Your task to perform on an android device: change the clock style Image 0: 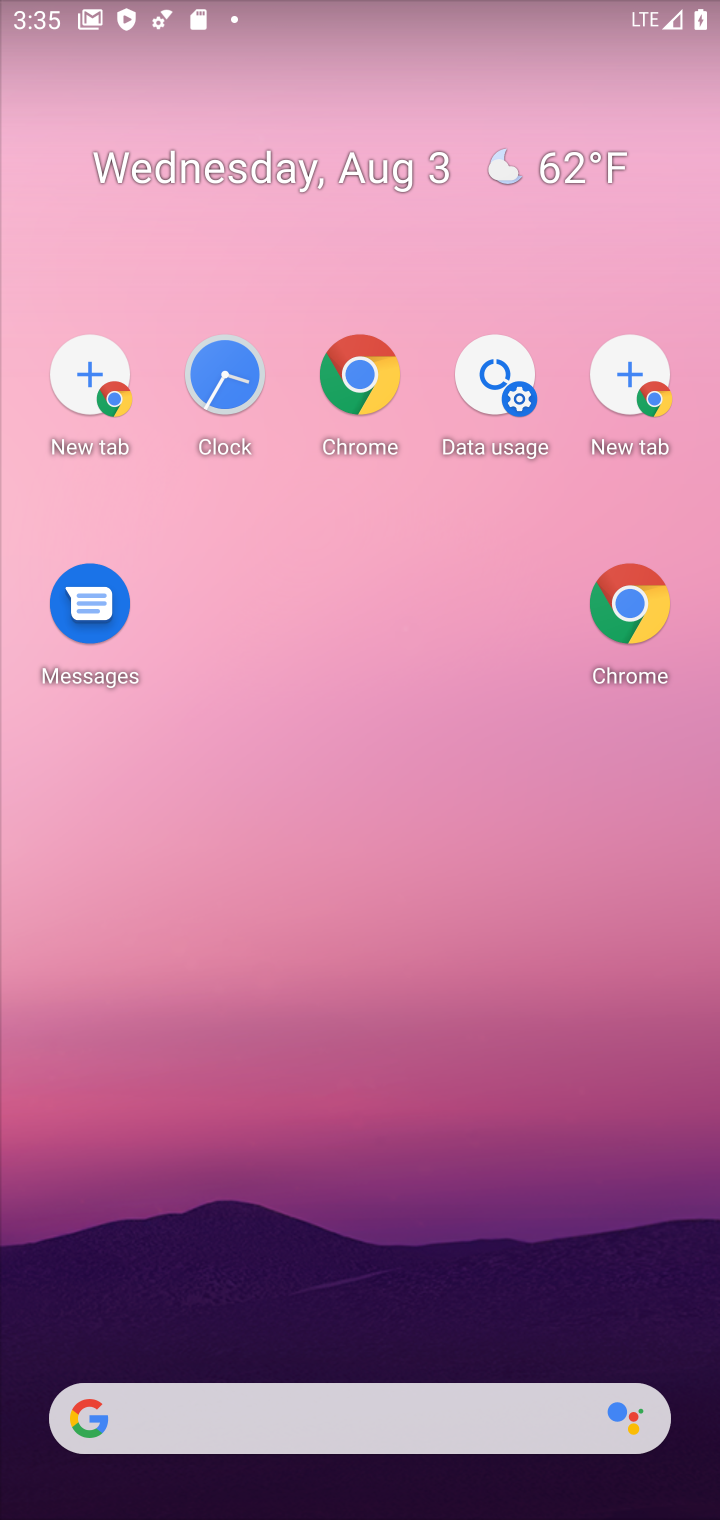
Step 0: click (211, 368)
Your task to perform on an android device: change the clock style Image 1: 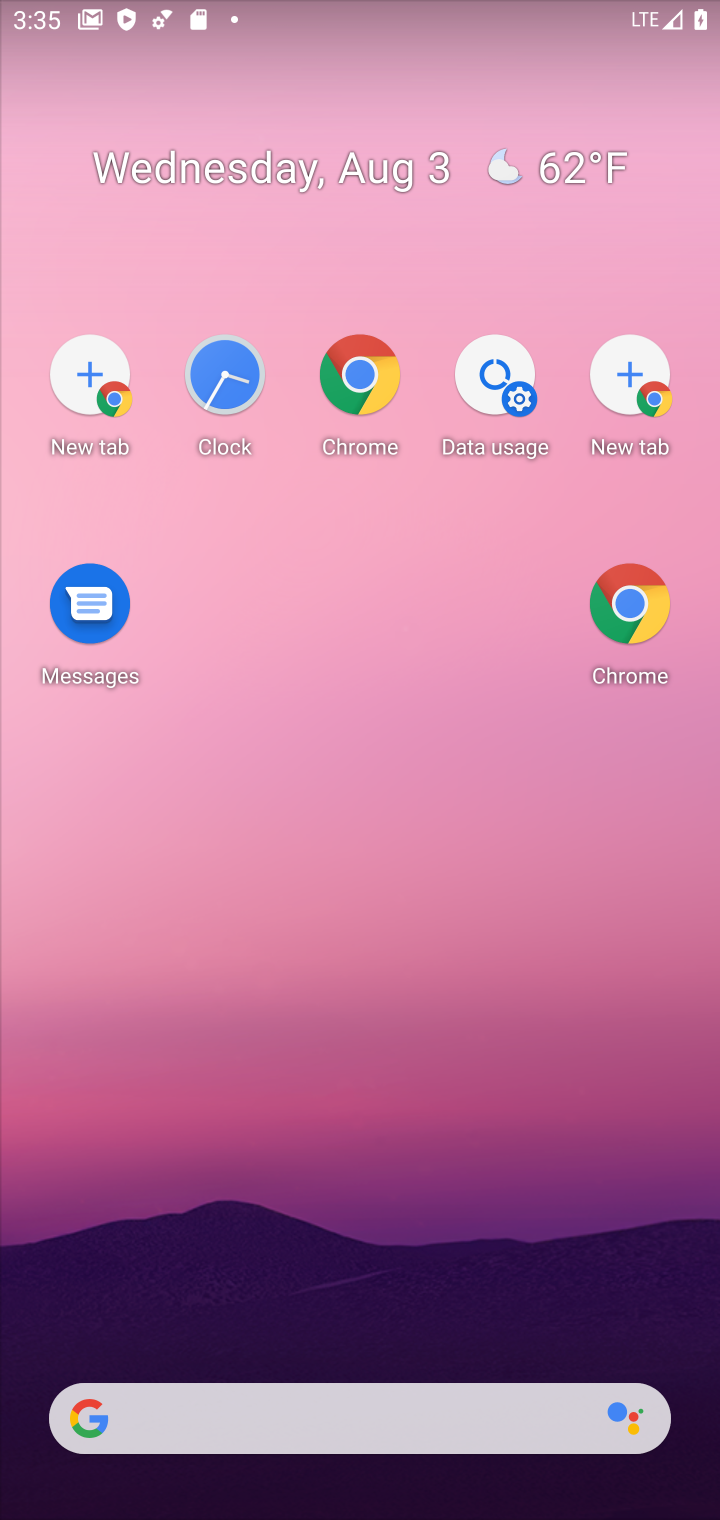
Step 1: click (223, 383)
Your task to perform on an android device: change the clock style Image 2: 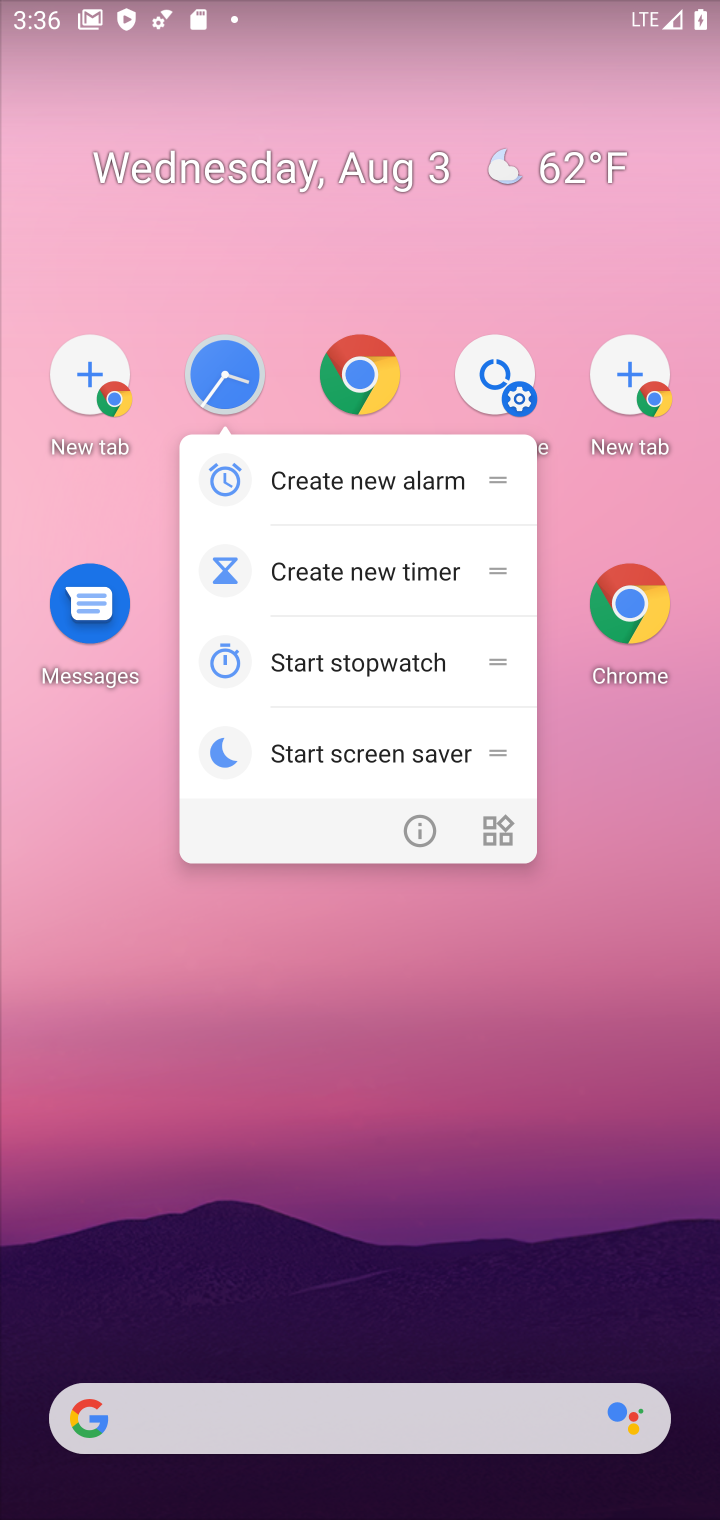
Step 2: click (318, 416)
Your task to perform on an android device: change the clock style Image 3: 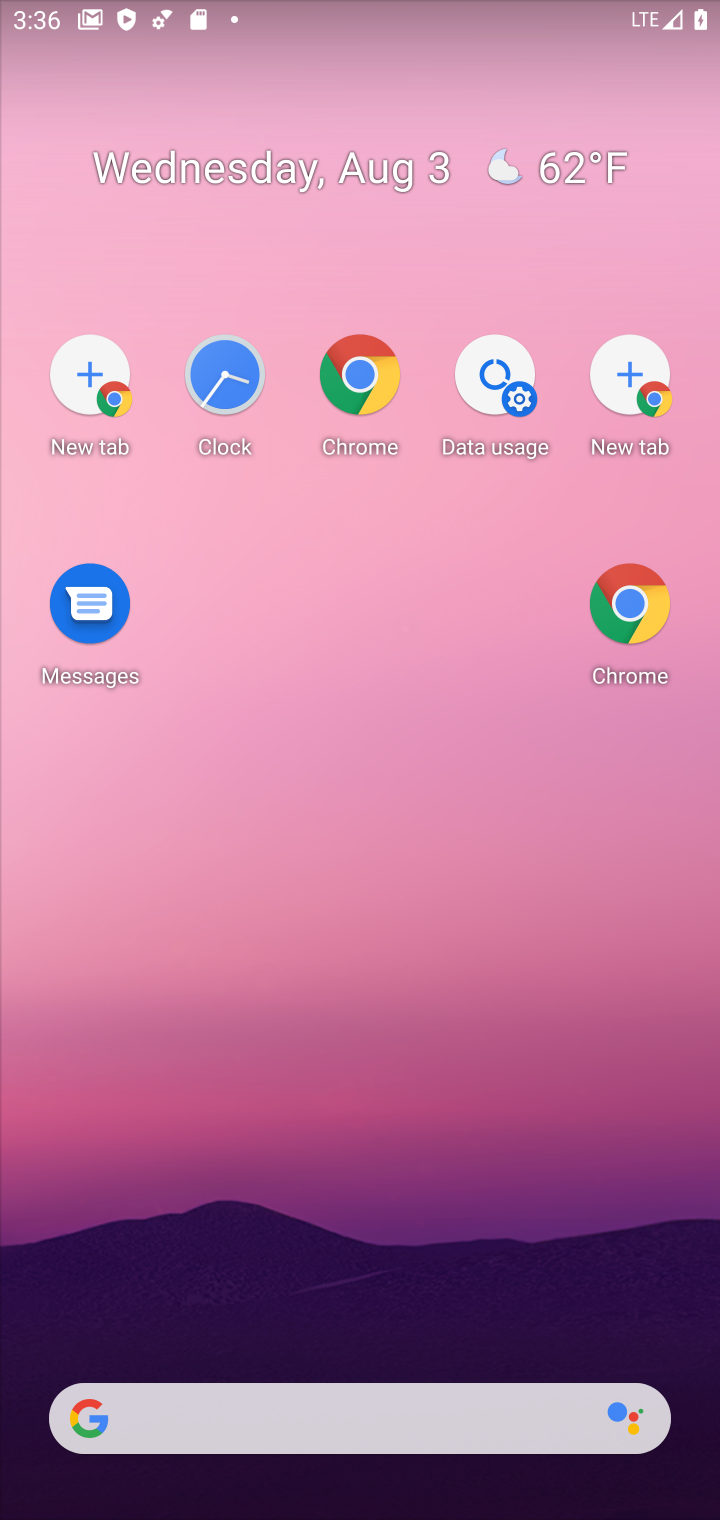
Step 3: click (214, 394)
Your task to perform on an android device: change the clock style Image 4: 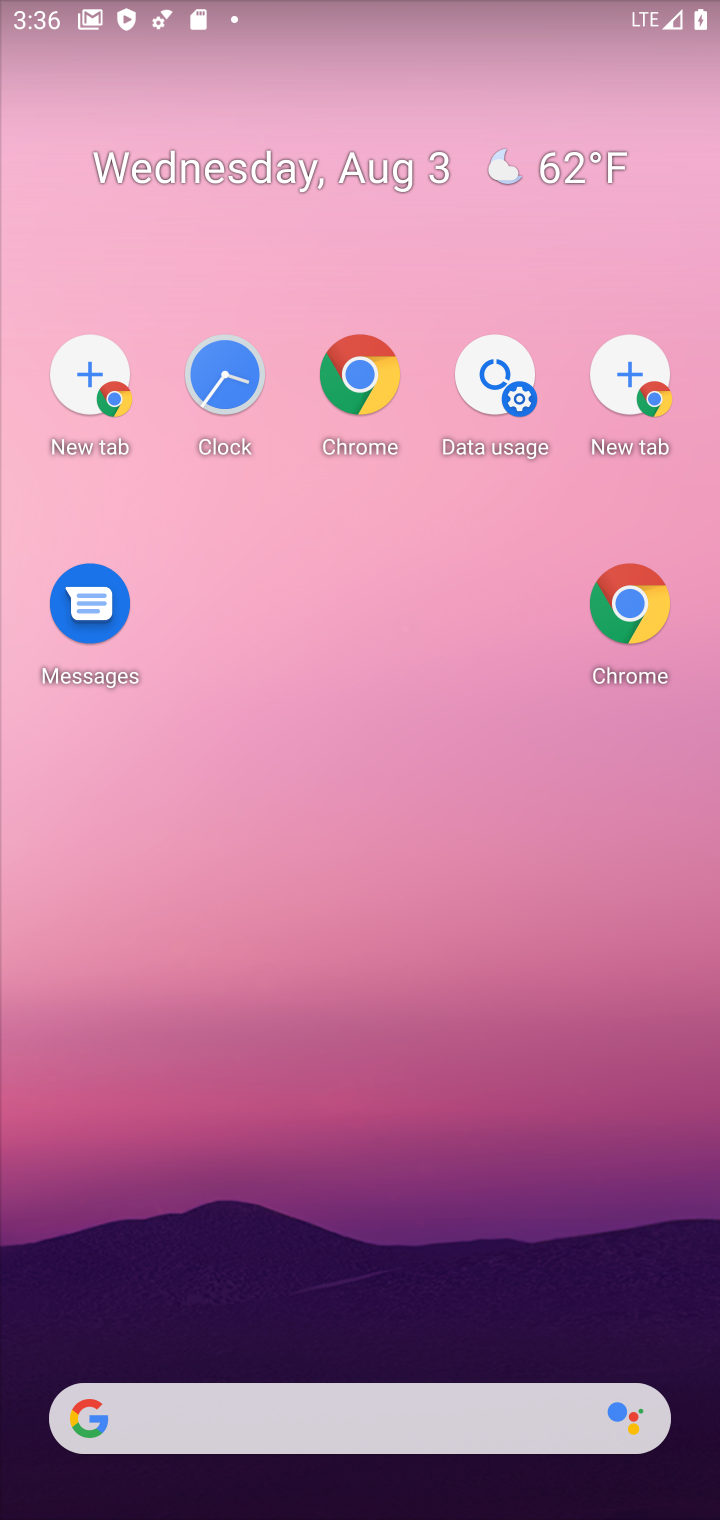
Step 4: click (214, 394)
Your task to perform on an android device: change the clock style Image 5: 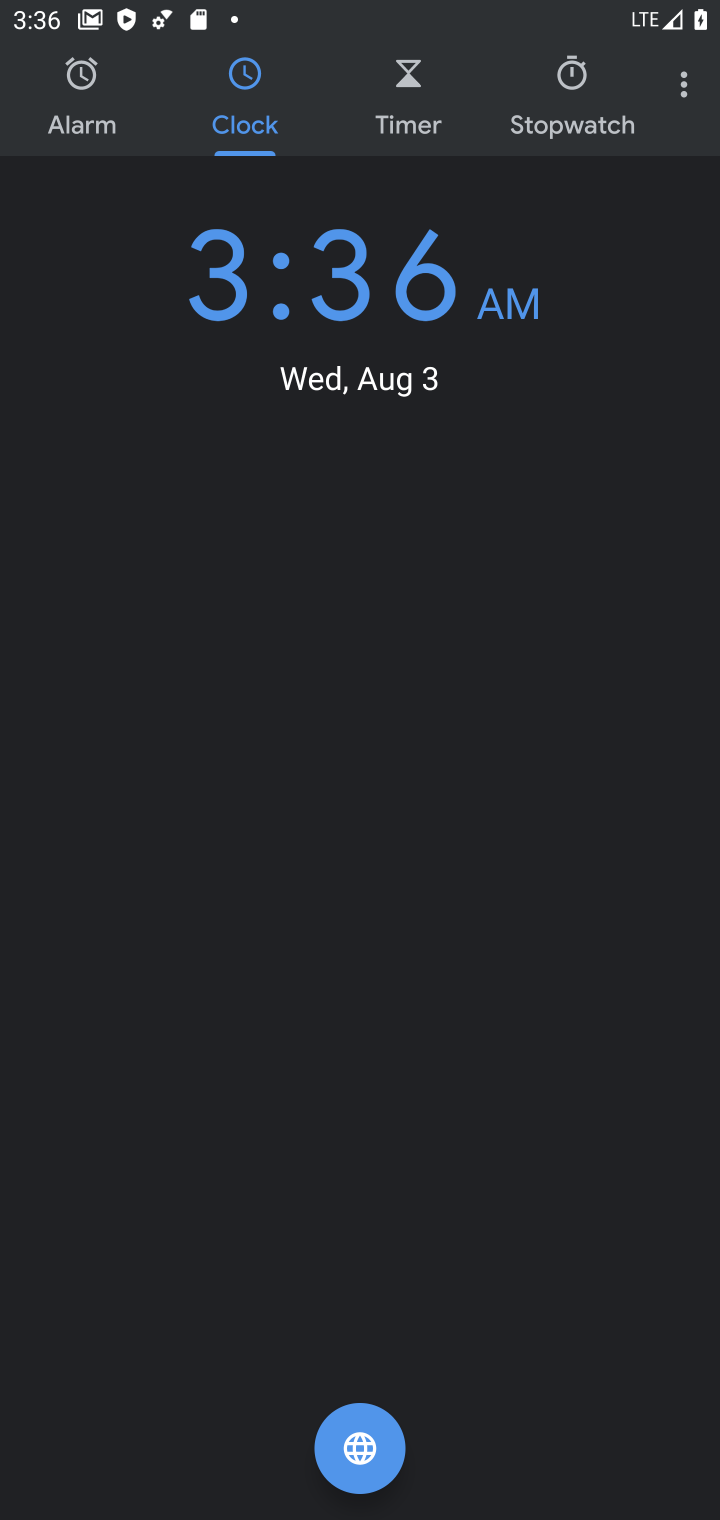
Step 5: click (214, 394)
Your task to perform on an android device: change the clock style Image 6: 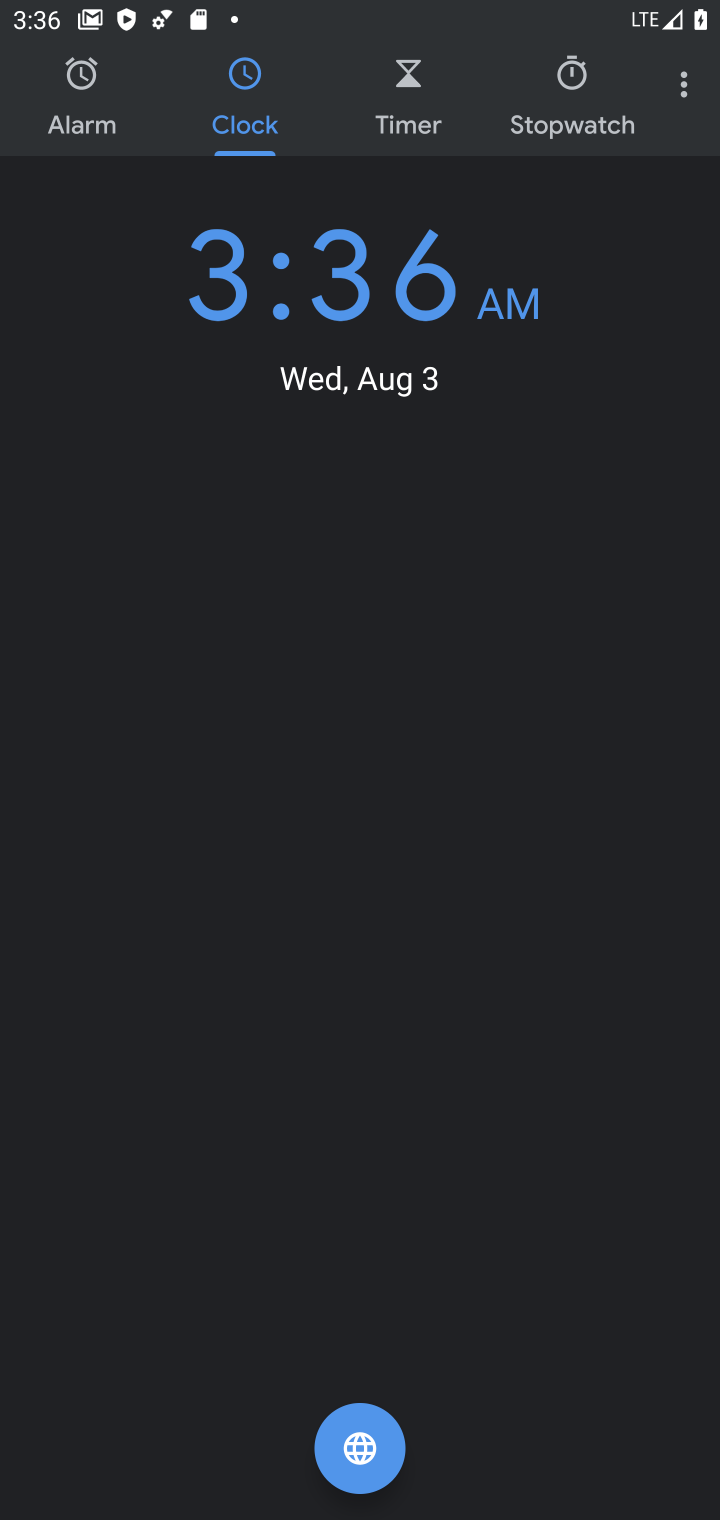
Step 6: click (696, 96)
Your task to perform on an android device: change the clock style Image 7: 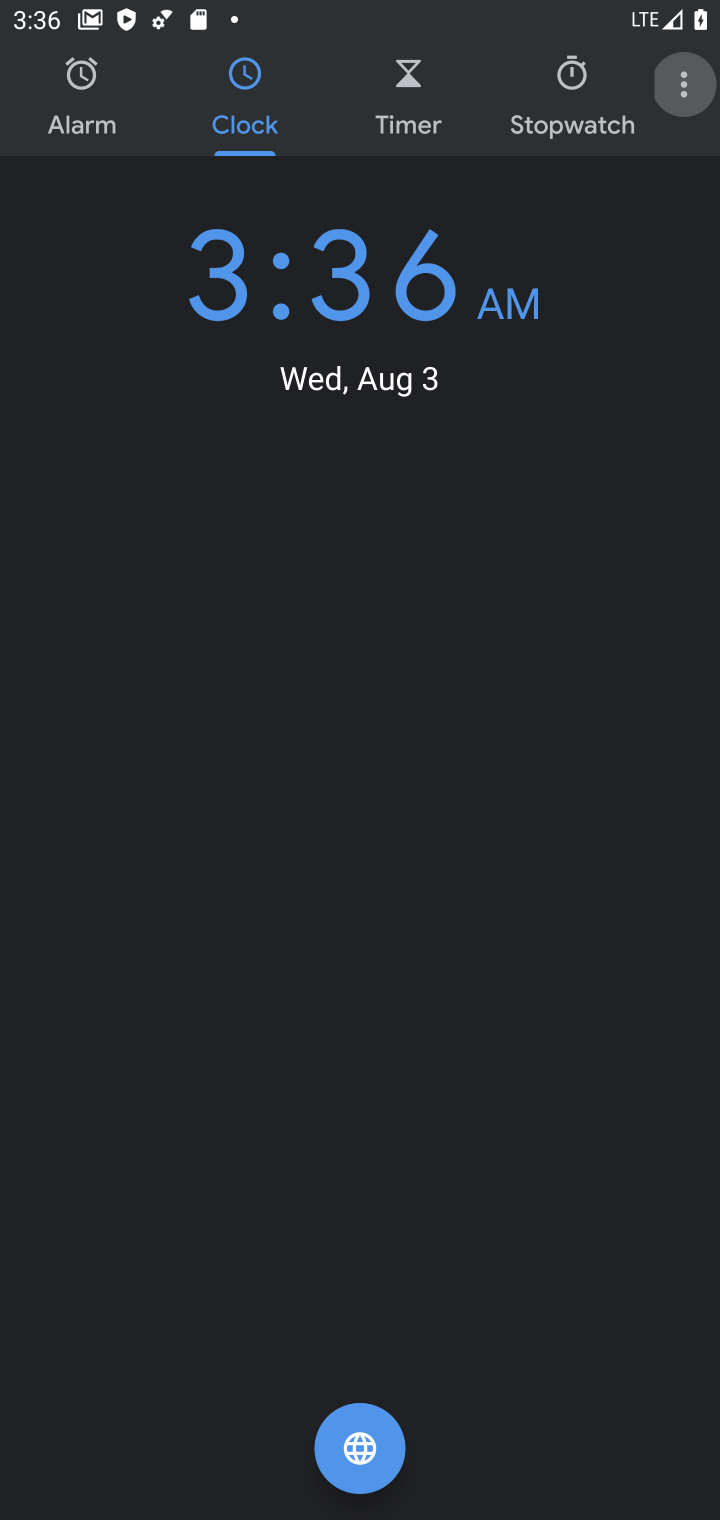
Step 7: click (702, 137)
Your task to perform on an android device: change the clock style Image 8: 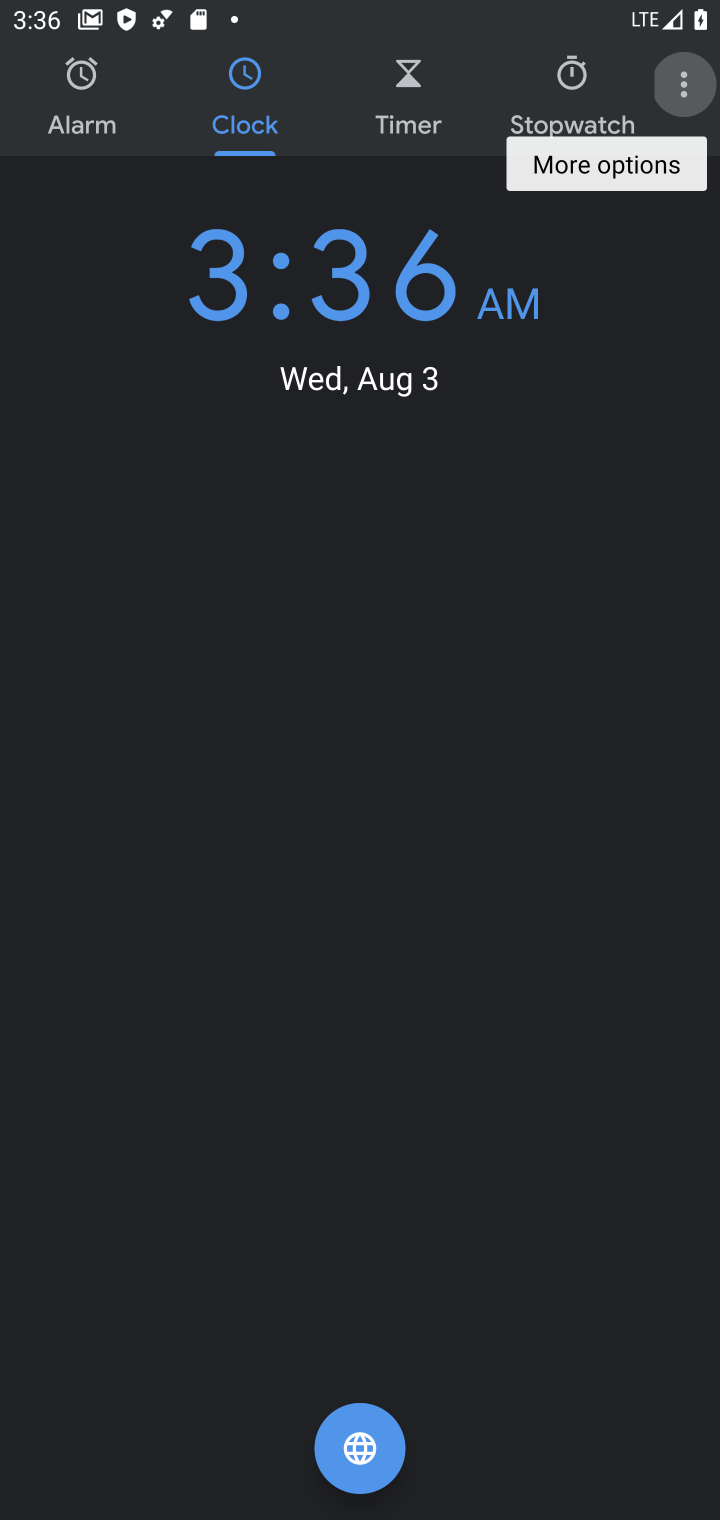
Step 8: click (702, 142)
Your task to perform on an android device: change the clock style Image 9: 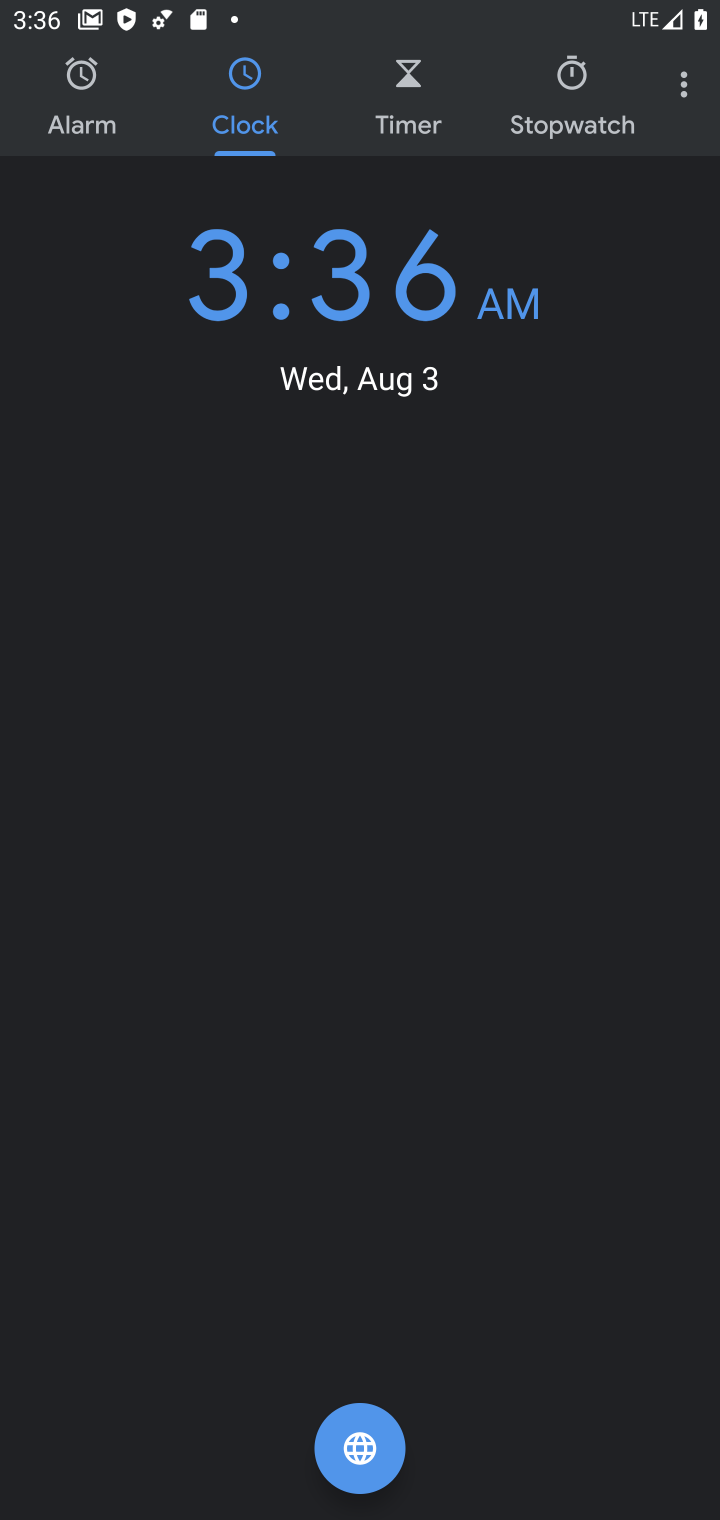
Step 9: click (702, 142)
Your task to perform on an android device: change the clock style Image 10: 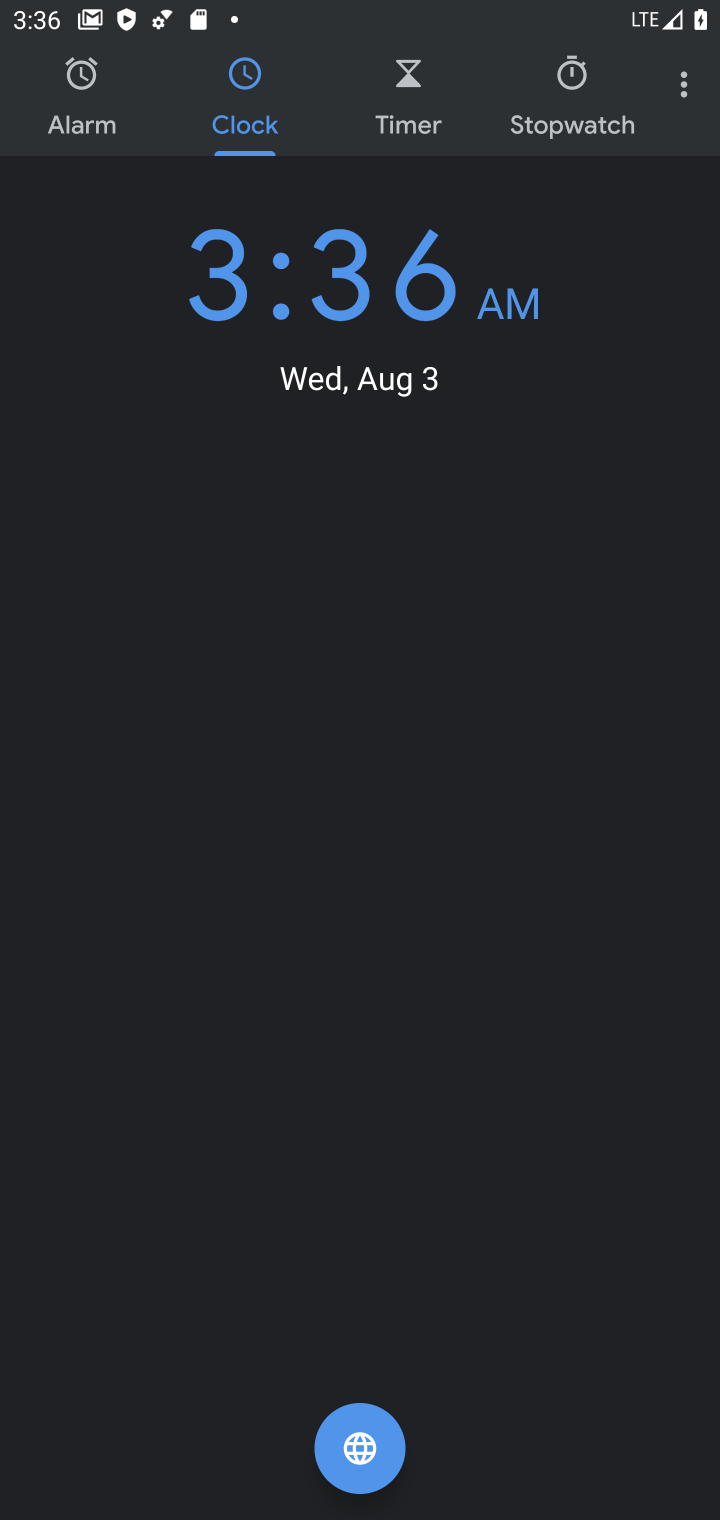
Step 10: click (690, 101)
Your task to perform on an android device: change the clock style Image 11: 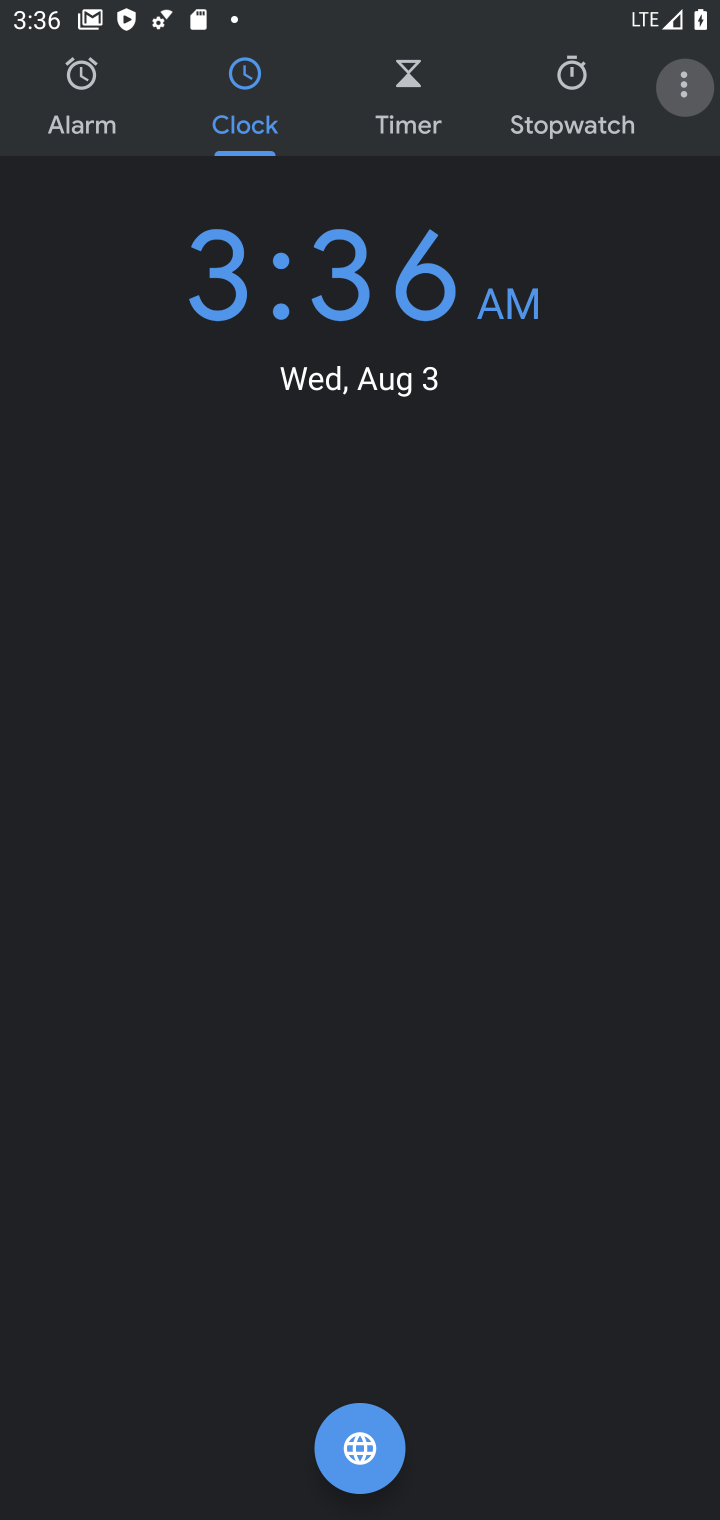
Step 11: click (677, 101)
Your task to perform on an android device: change the clock style Image 12: 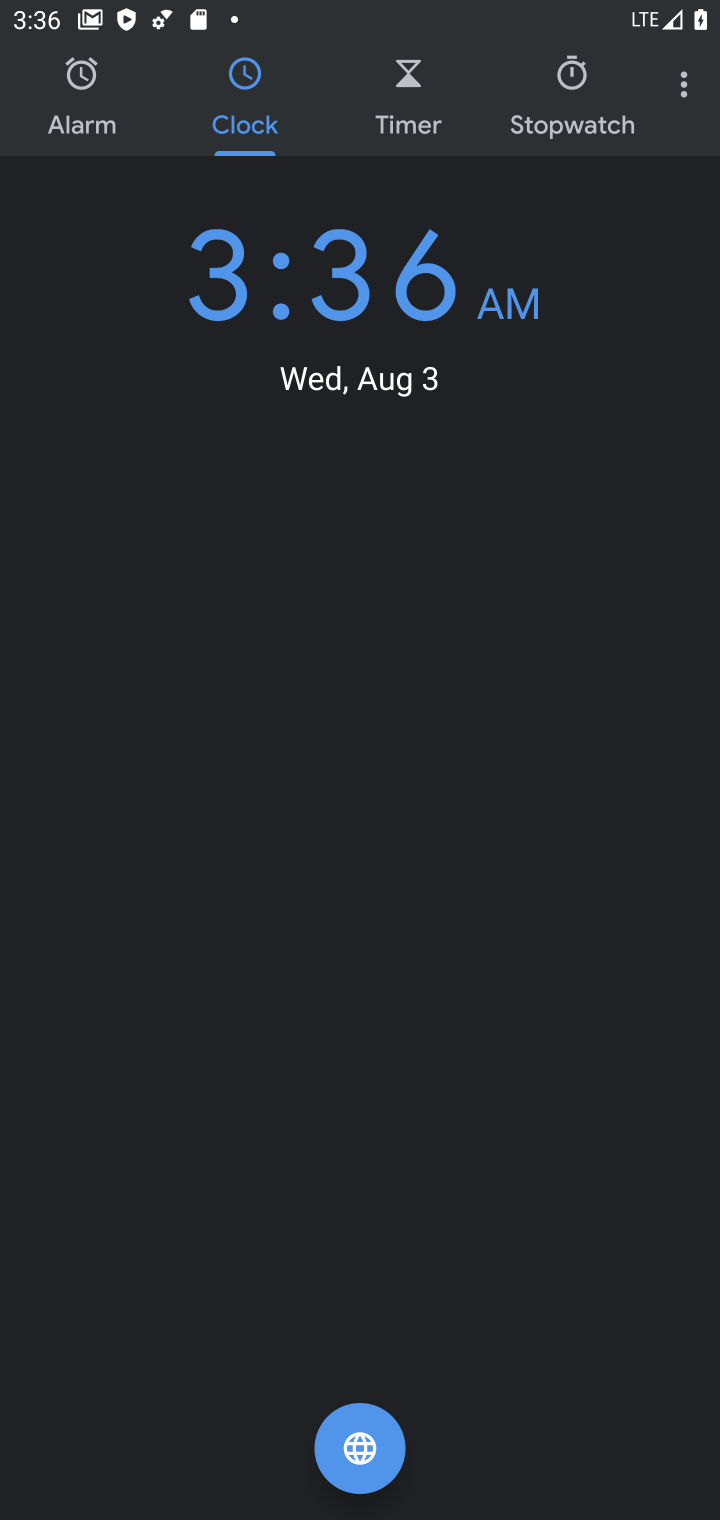
Step 12: click (678, 81)
Your task to perform on an android device: change the clock style Image 13: 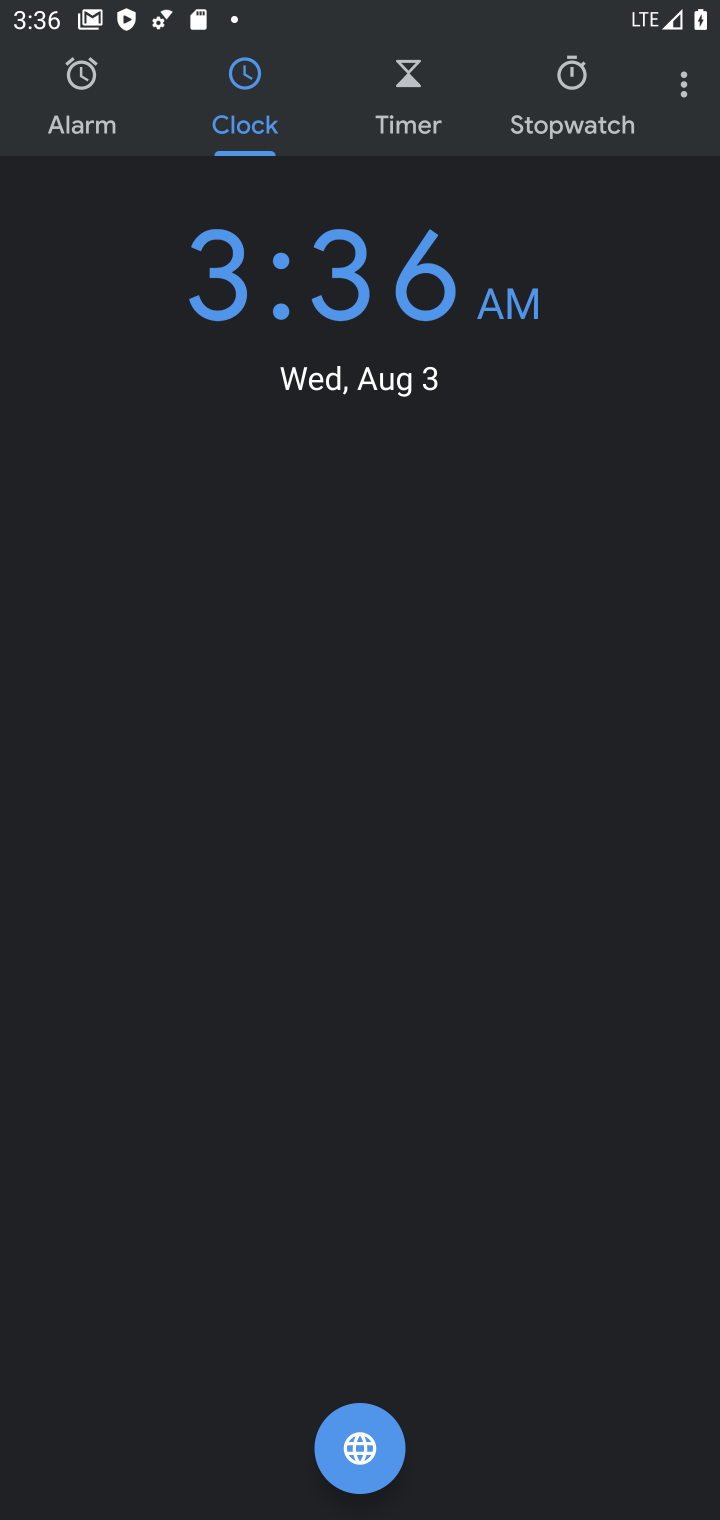
Step 13: click (676, 79)
Your task to perform on an android device: change the clock style Image 14: 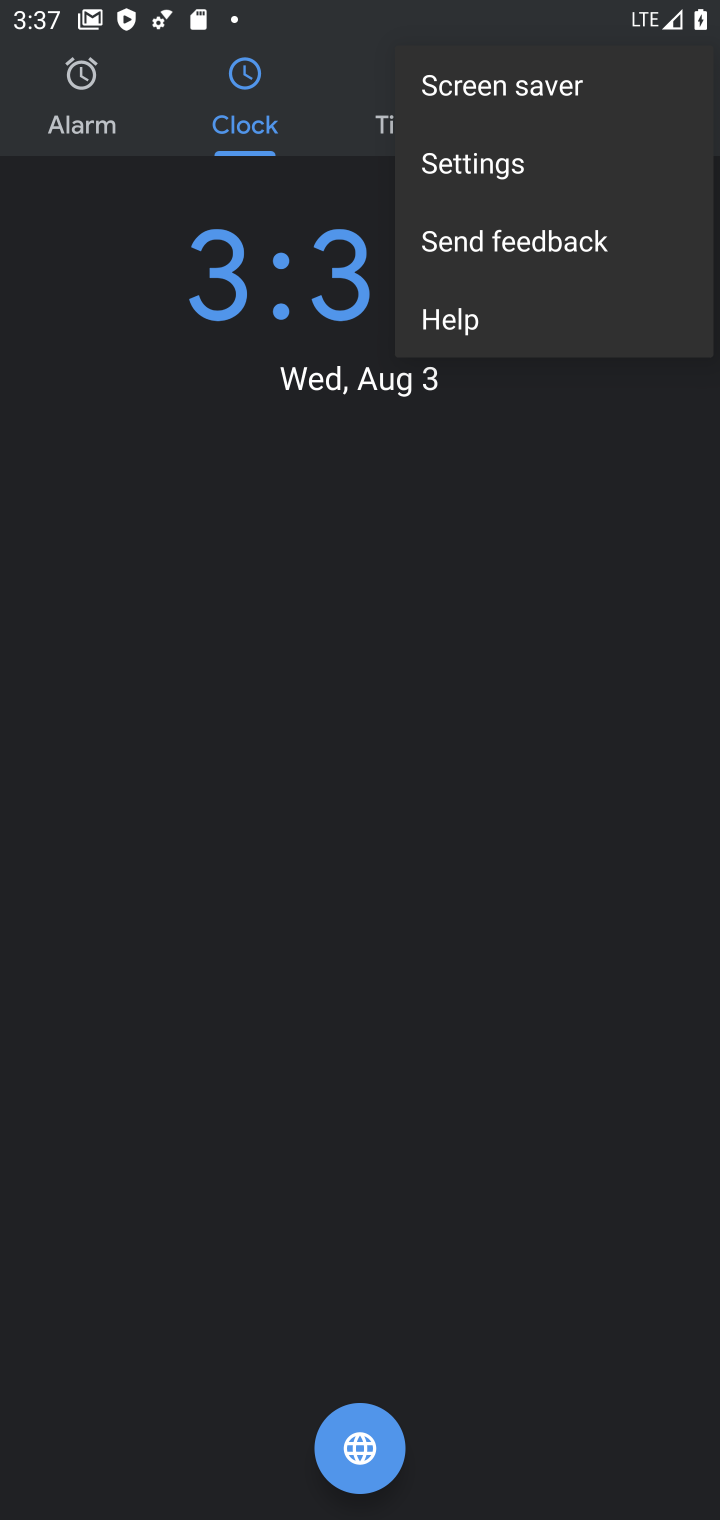
Step 14: click (528, 158)
Your task to perform on an android device: change the clock style Image 15: 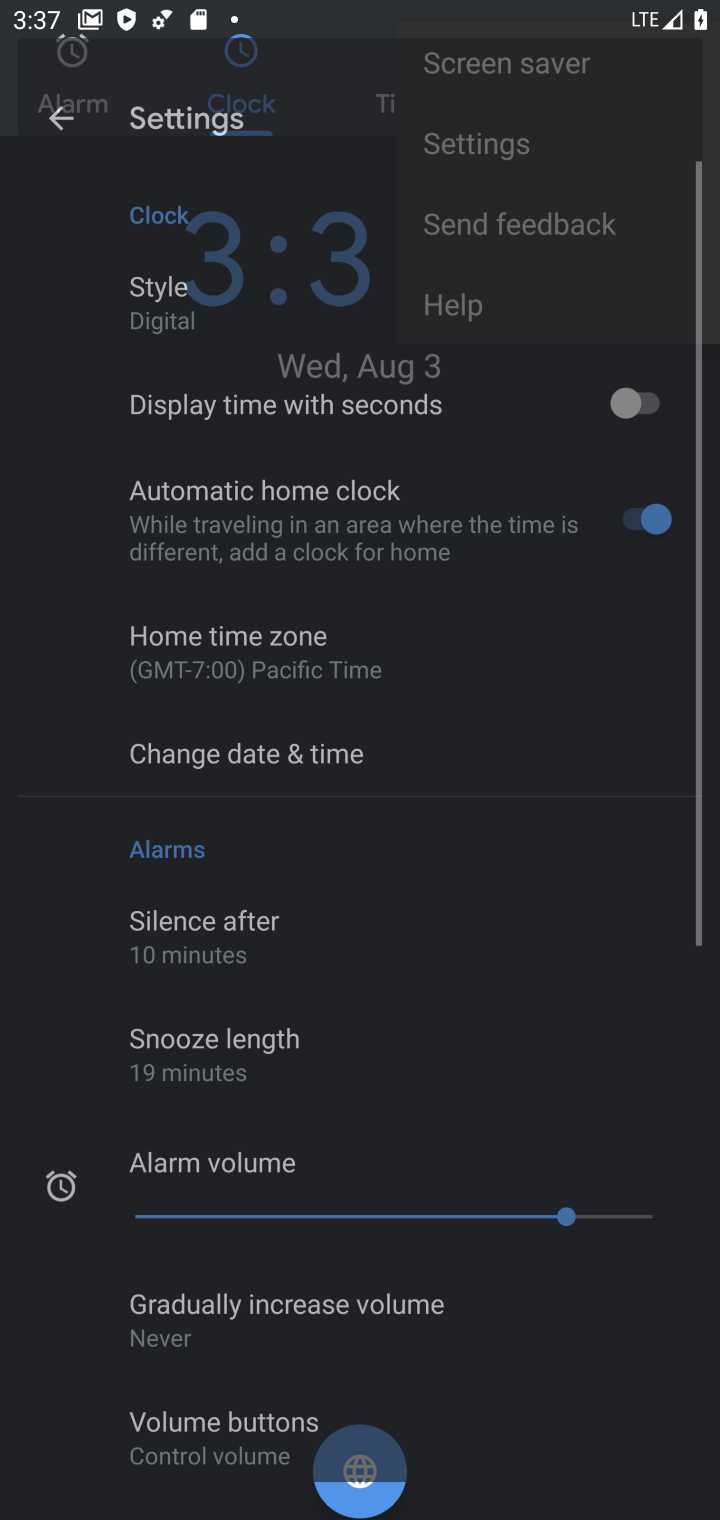
Step 15: click (475, 185)
Your task to perform on an android device: change the clock style Image 16: 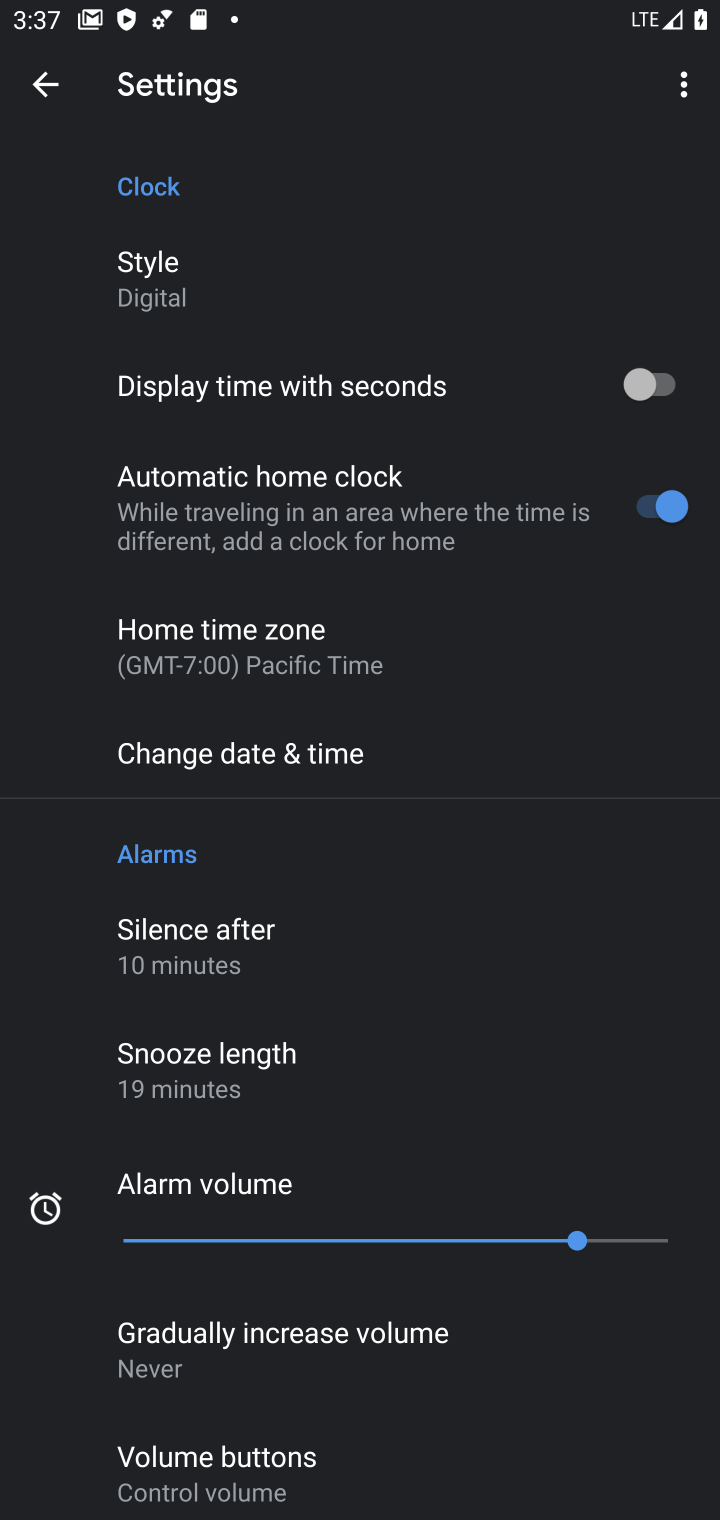
Step 16: click (163, 295)
Your task to perform on an android device: change the clock style Image 17: 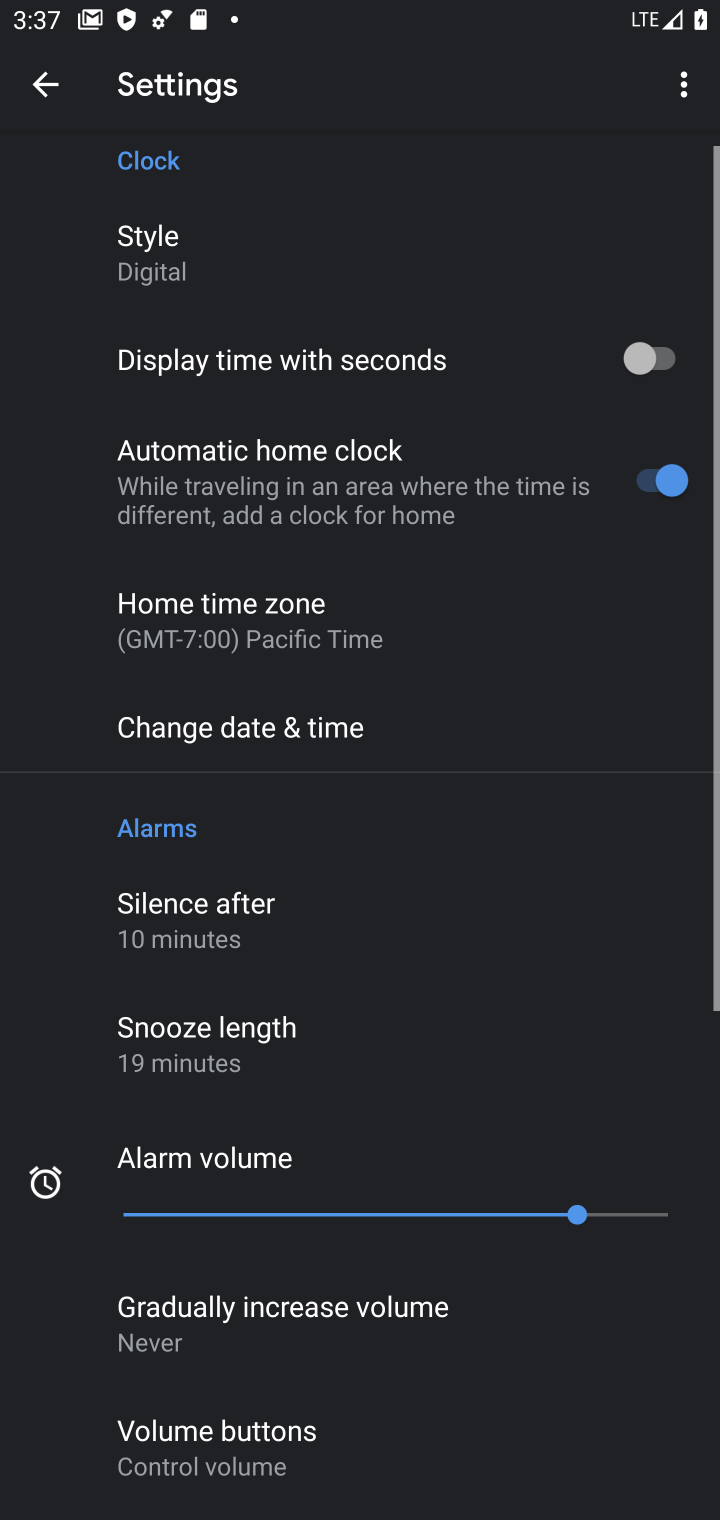
Step 17: click (154, 255)
Your task to perform on an android device: change the clock style Image 18: 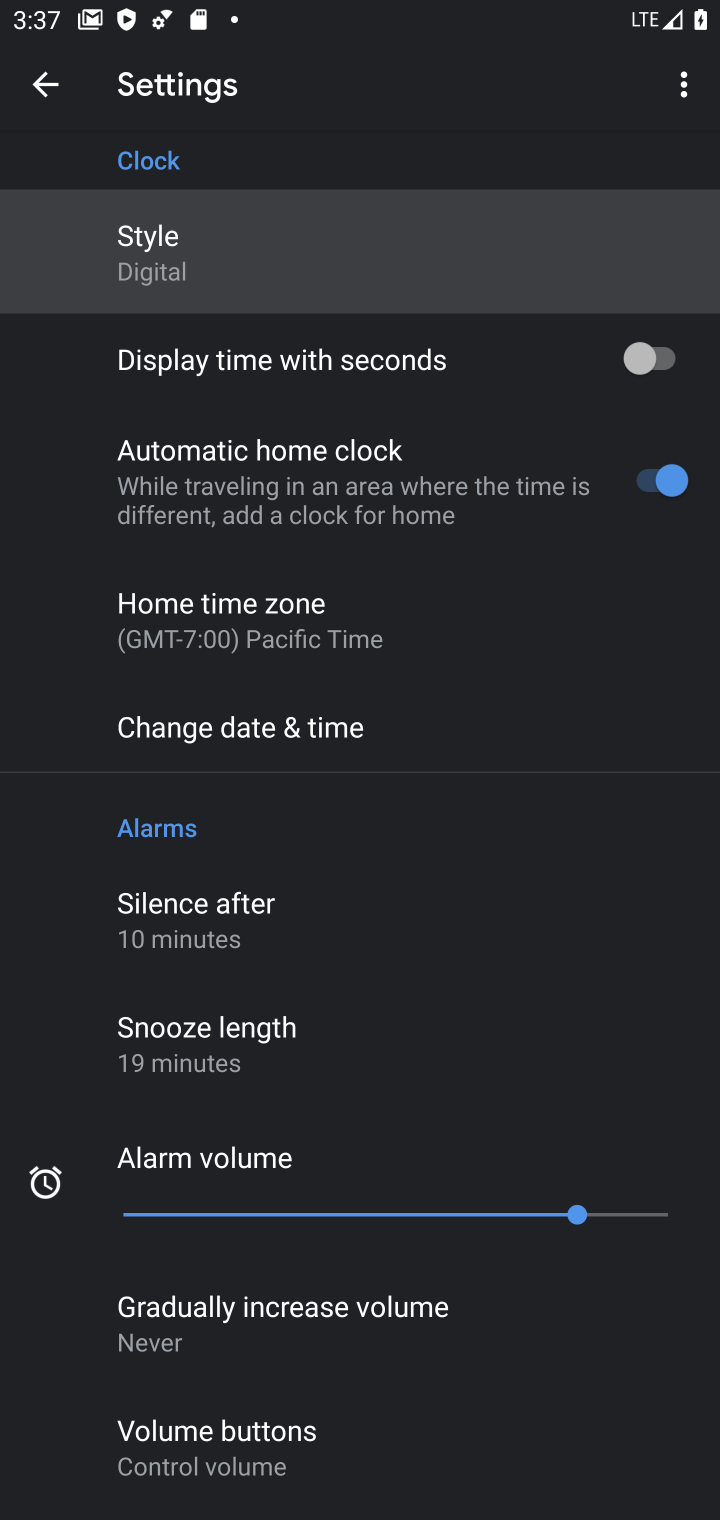
Step 18: click (154, 255)
Your task to perform on an android device: change the clock style Image 19: 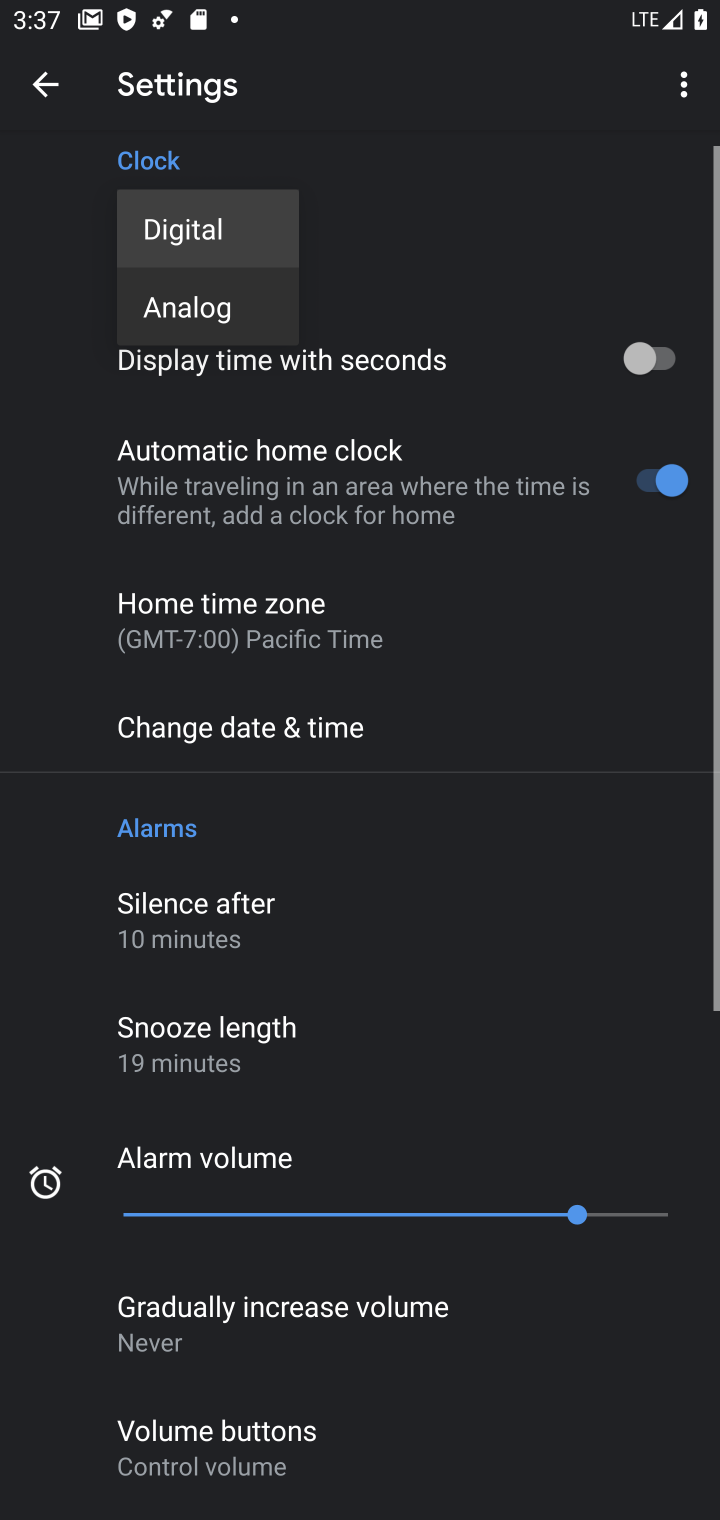
Step 19: click (188, 297)
Your task to perform on an android device: change the clock style Image 20: 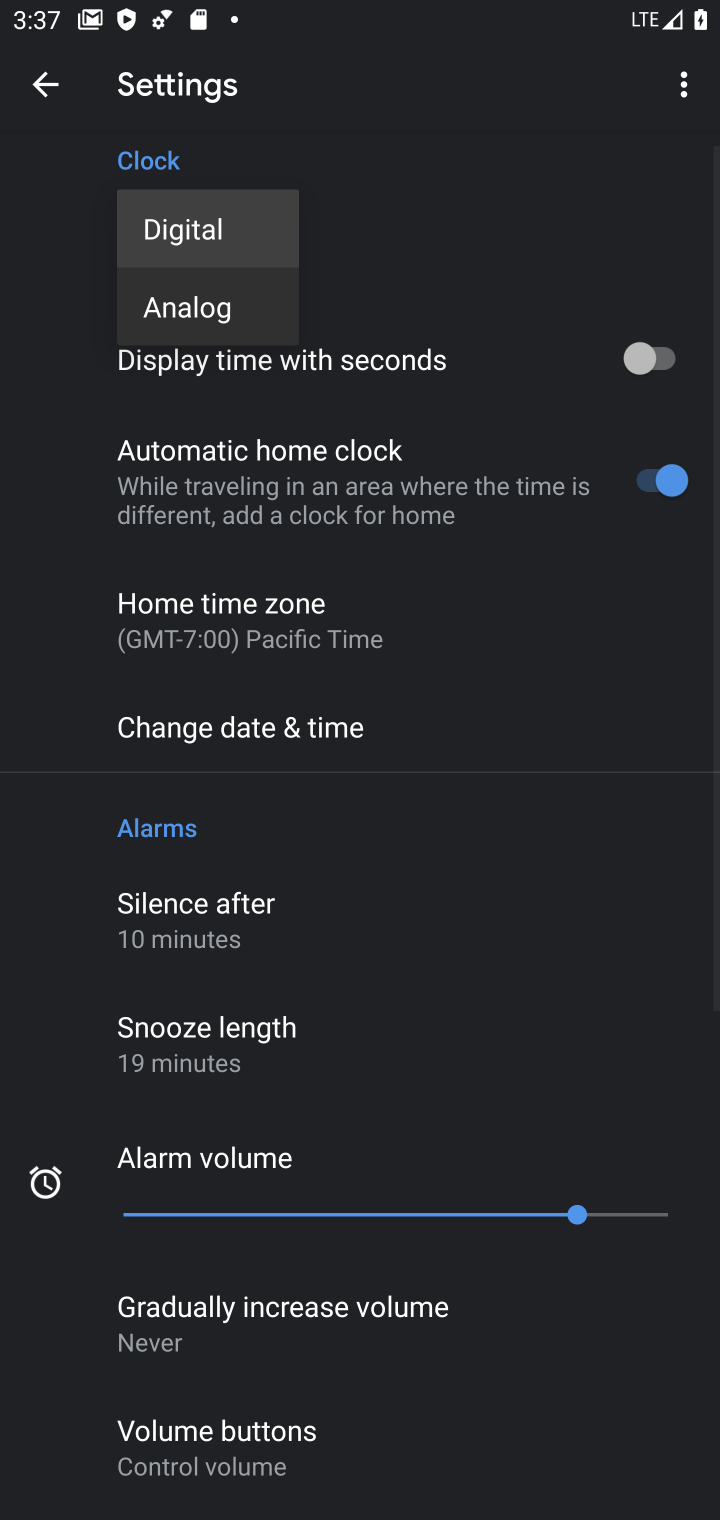
Step 20: task complete